Your task to perform on an android device: open app "Airtel Thanks" Image 0: 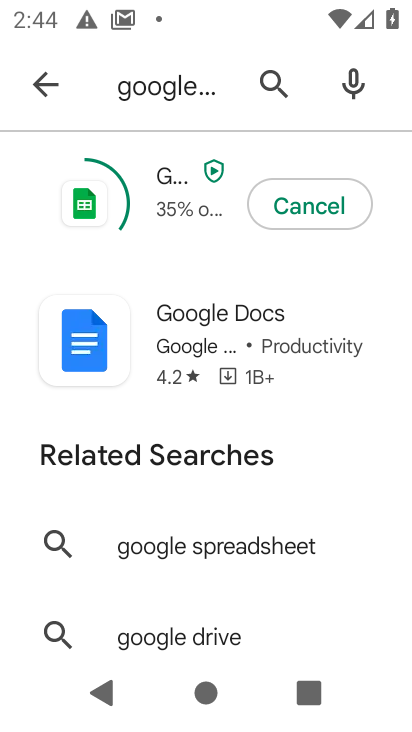
Step 0: click (252, 77)
Your task to perform on an android device: open app "Airtel Thanks" Image 1: 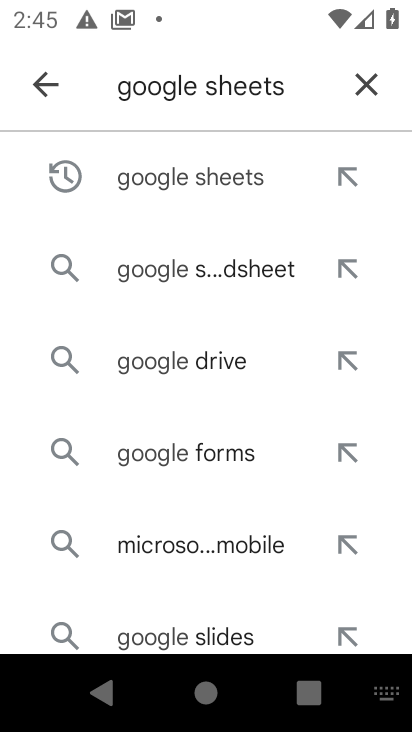
Step 1: click (373, 73)
Your task to perform on an android device: open app "Airtel Thanks" Image 2: 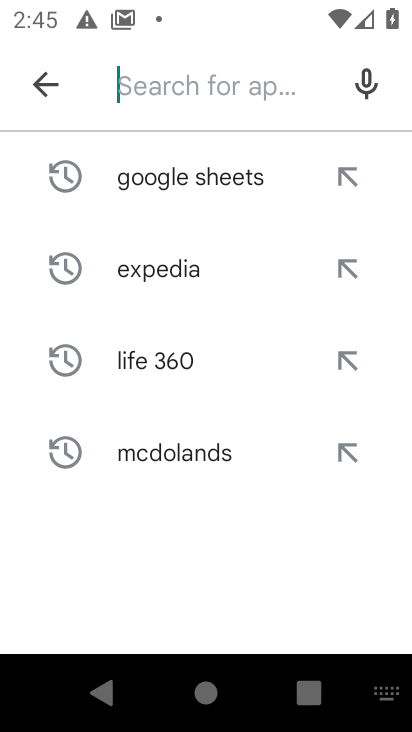
Step 2: type "airtel"
Your task to perform on an android device: open app "Airtel Thanks" Image 3: 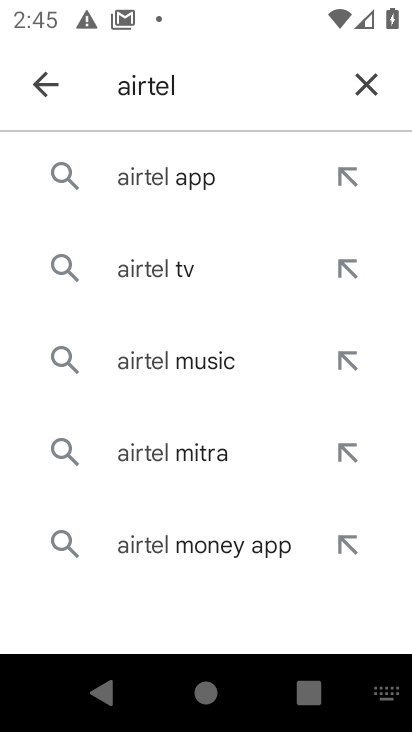
Step 3: click (225, 178)
Your task to perform on an android device: open app "Airtel Thanks" Image 4: 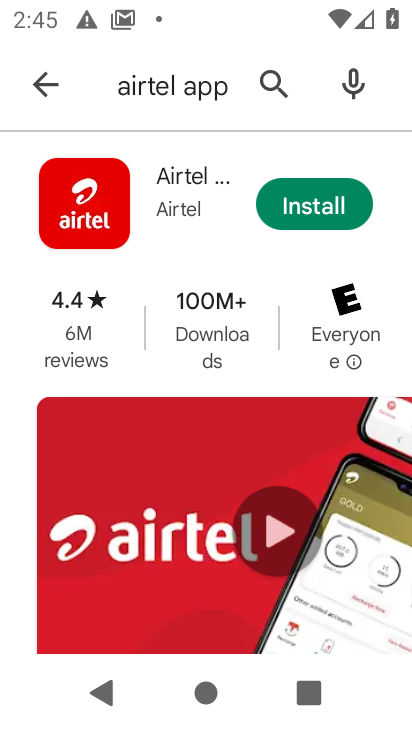
Step 4: click (280, 216)
Your task to perform on an android device: open app "Airtel Thanks" Image 5: 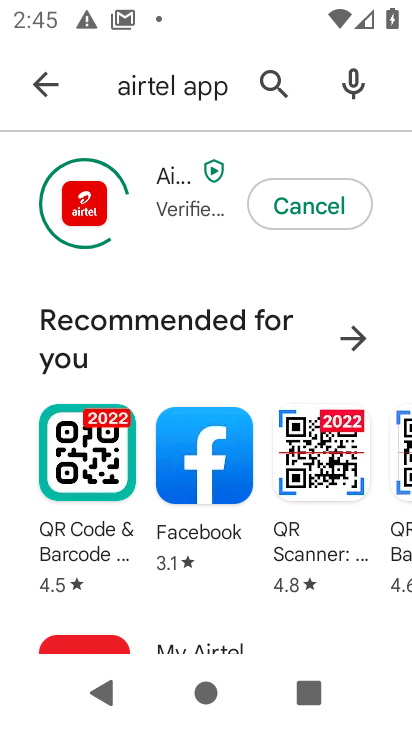
Step 5: task complete